Your task to perform on an android device: Turn off the flashlight Image 0: 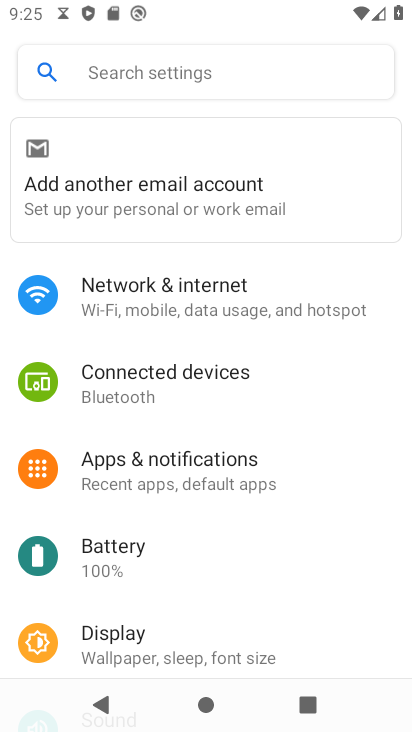
Step 0: press home button
Your task to perform on an android device: Turn off the flashlight Image 1: 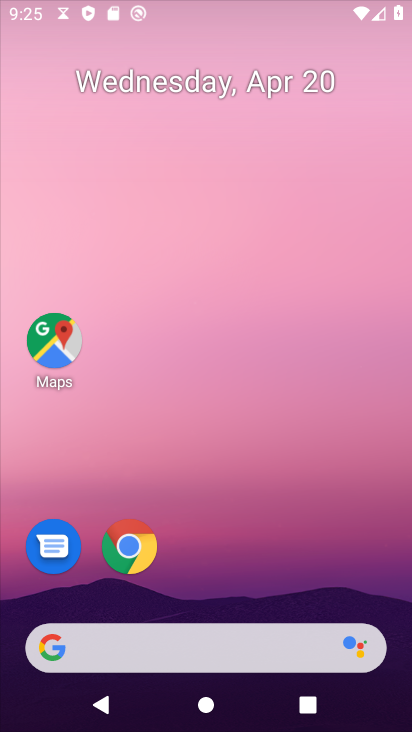
Step 1: task complete